Your task to perform on an android device: Search for vegetarian restaurants on Maps Image 0: 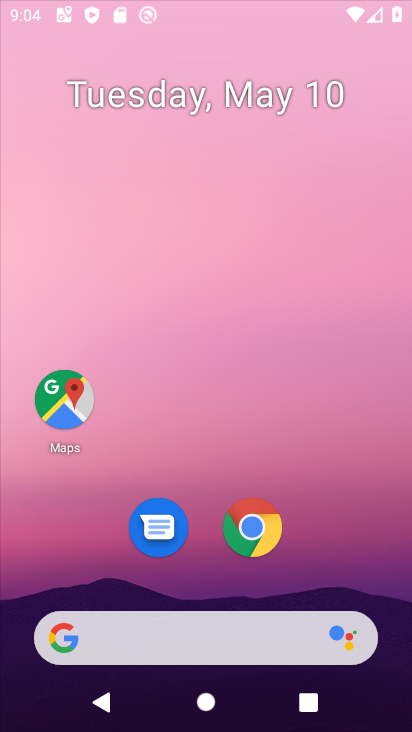
Step 0: drag from (322, 594) to (321, 256)
Your task to perform on an android device: Search for vegetarian restaurants on Maps Image 1: 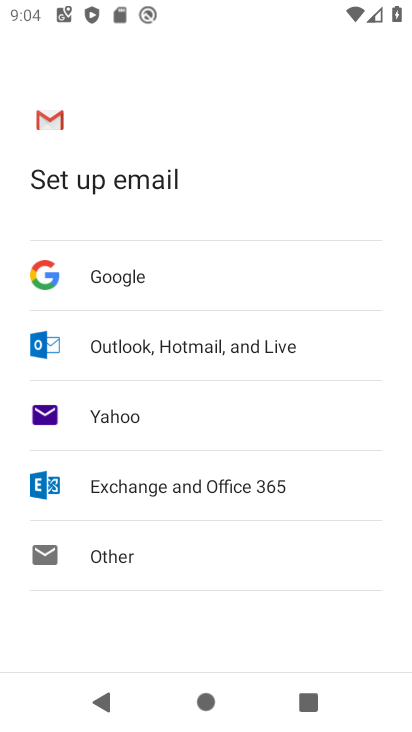
Step 1: press home button
Your task to perform on an android device: Search for vegetarian restaurants on Maps Image 2: 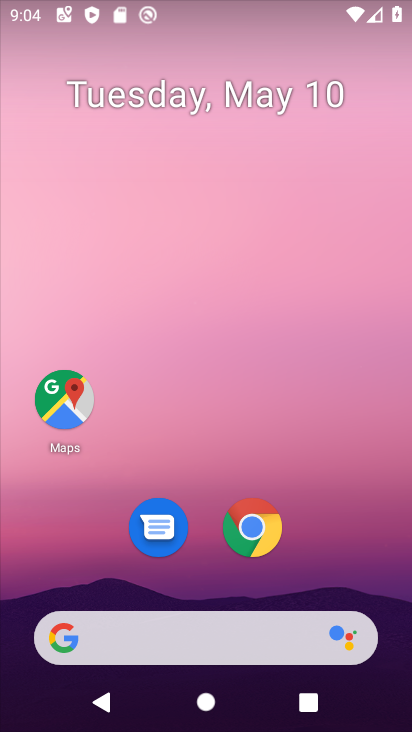
Step 2: drag from (204, 582) to (256, 280)
Your task to perform on an android device: Search for vegetarian restaurants on Maps Image 3: 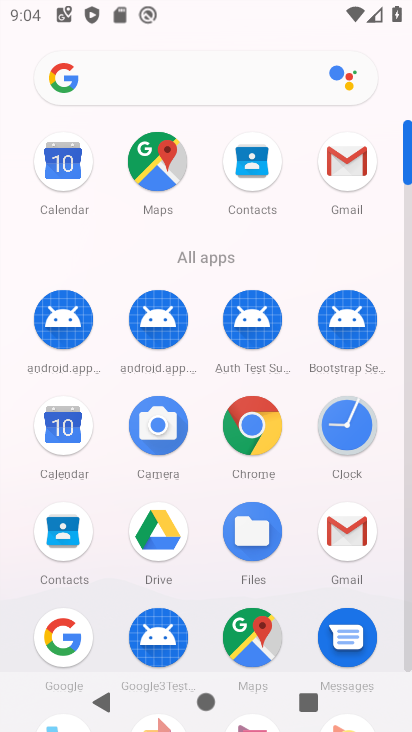
Step 3: drag from (193, 615) to (211, 265)
Your task to perform on an android device: Search for vegetarian restaurants on Maps Image 4: 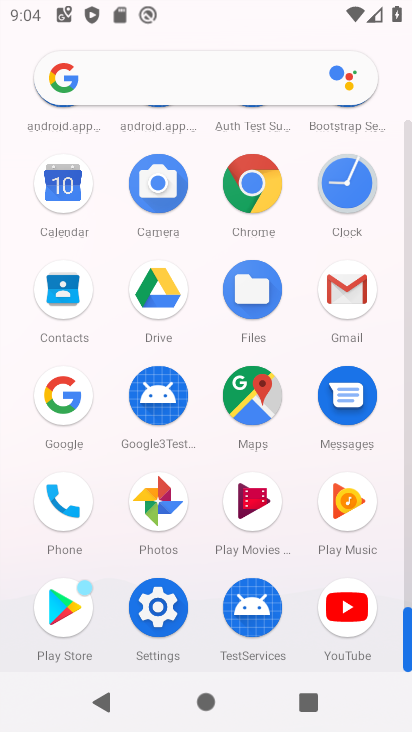
Step 4: drag from (192, 544) to (213, 306)
Your task to perform on an android device: Search for vegetarian restaurants on Maps Image 5: 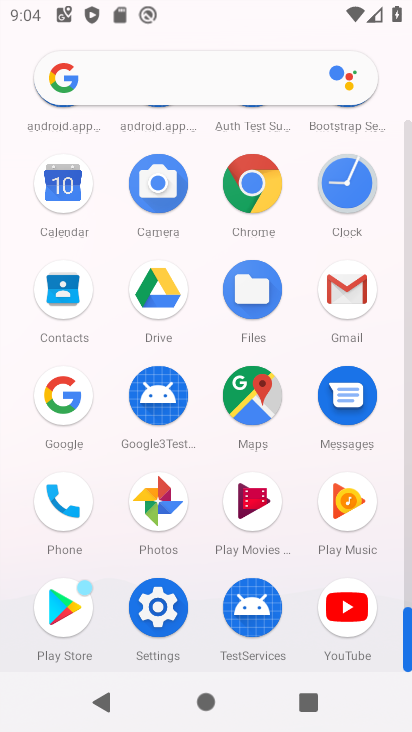
Step 5: drag from (214, 242) to (171, 454)
Your task to perform on an android device: Search for vegetarian restaurants on Maps Image 6: 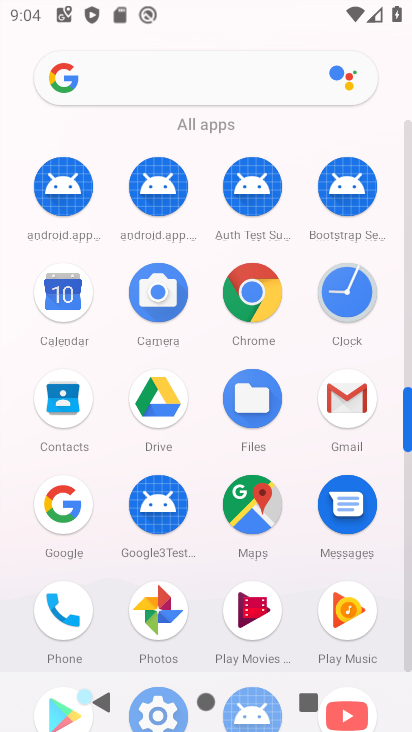
Step 6: drag from (190, 312) to (146, 465)
Your task to perform on an android device: Search for vegetarian restaurants on Maps Image 7: 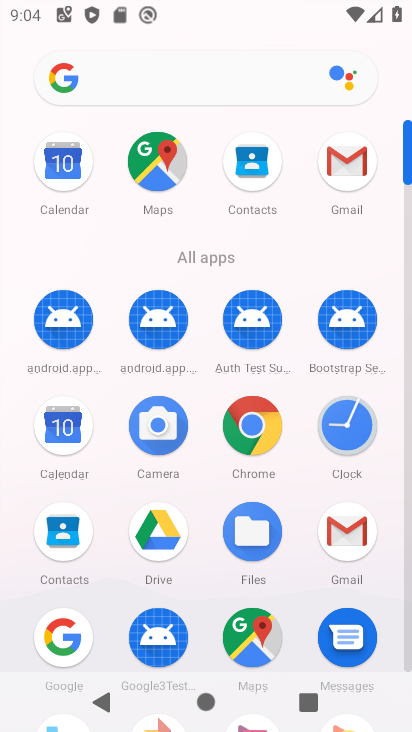
Step 7: drag from (190, 539) to (226, 333)
Your task to perform on an android device: Search for vegetarian restaurants on Maps Image 8: 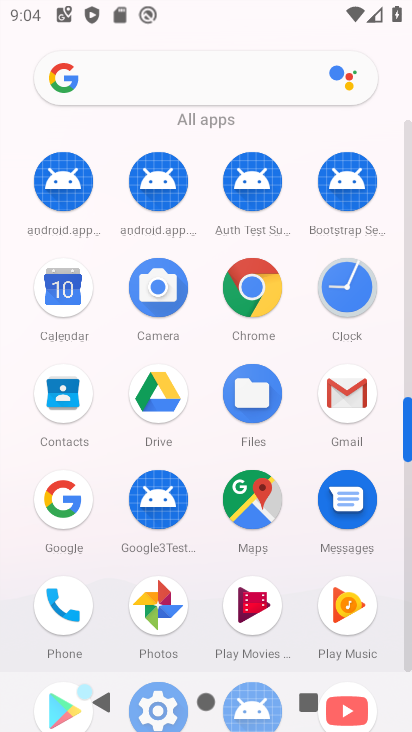
Step 8: drag from (214, 523) to (231, 275)
Your task to perform on an android device: Search for vegetarian restaurants on Maps Image 9: 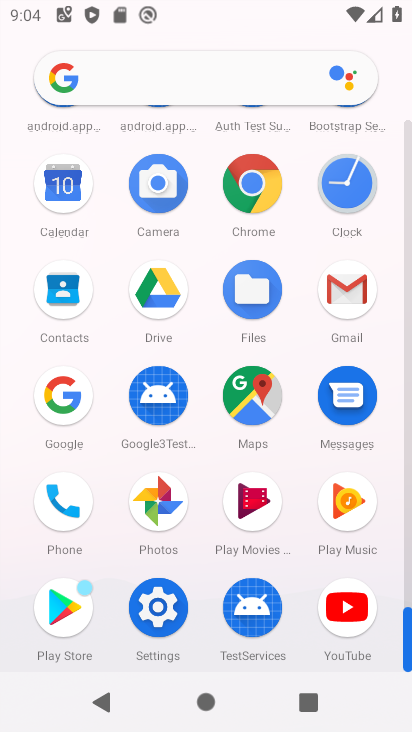
Step 9: click (244, 418)
Your task to perform on an android device: Search for vegetarian restaurants on Maps Image 10: 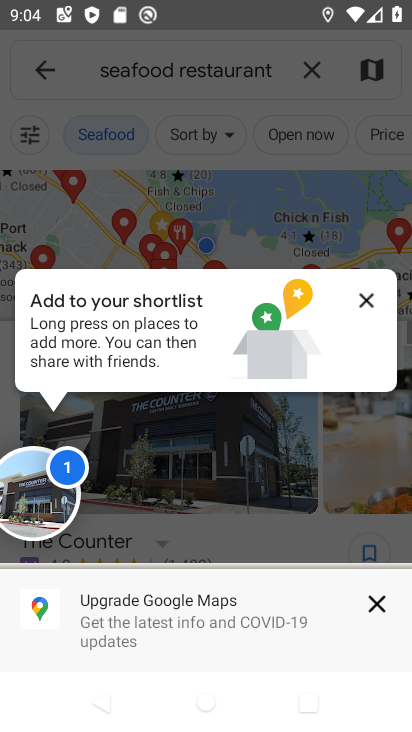
Step 10: click (362, 298)
Your task to perform on an android device: Search for vegetarian restaurants on Maps Image 11: 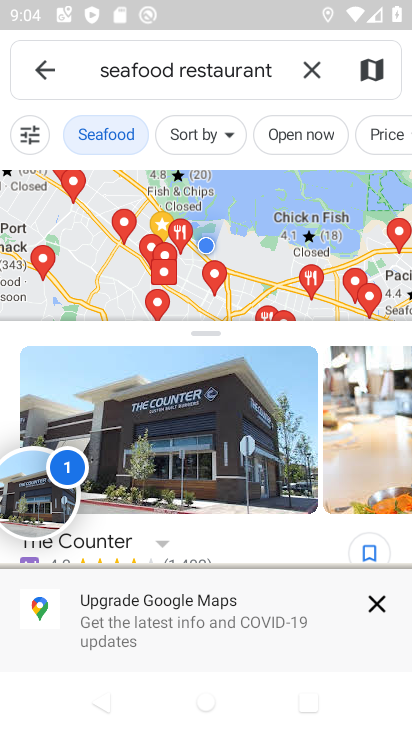
Step 11: click (316, 71)
Your task to perform on an android device: Search for vegetarian restaurants on Maps Image 12: 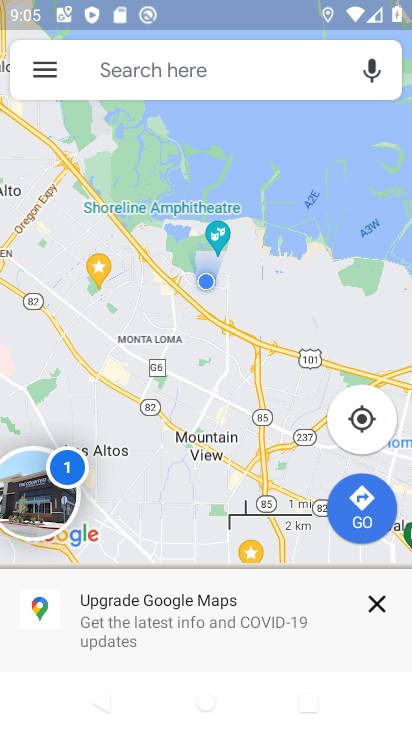
Step 12: click (181, 73)
Your task to perform on an android device: Search for vegetarian restaurants on Maps Image 13: 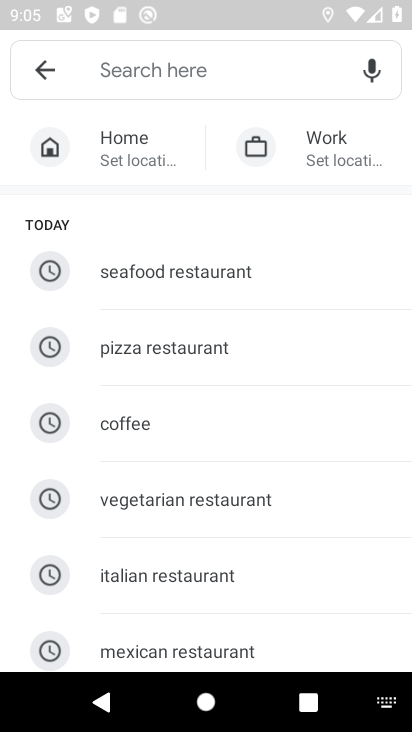
Step 13: click (160, 505)
Your task to perform on an android device: Search for vegetarian restaurants on Maps Image 14: 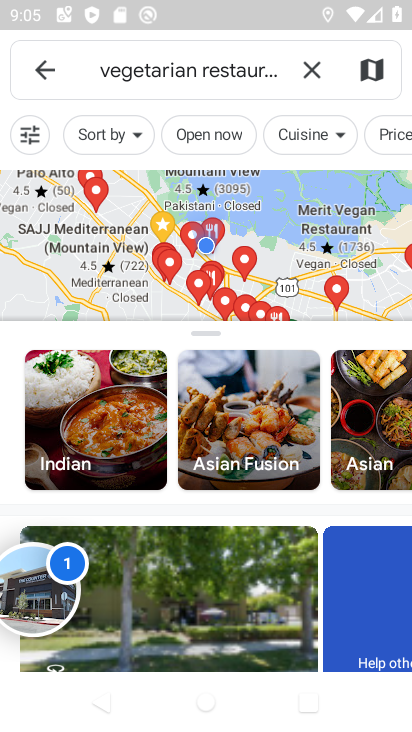
Step 14: task complete